Your task to perform on an android device: Go to settings Image 0: 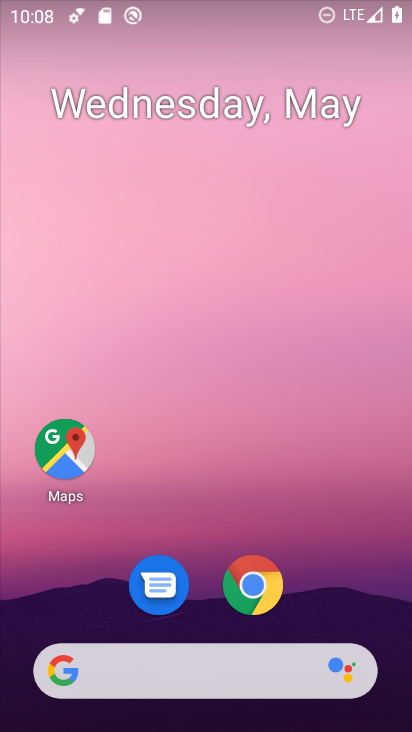
Step 0: drag from (270, 449) to (289, 66)
Your task to perform on an android device: Go to settings Image 1: 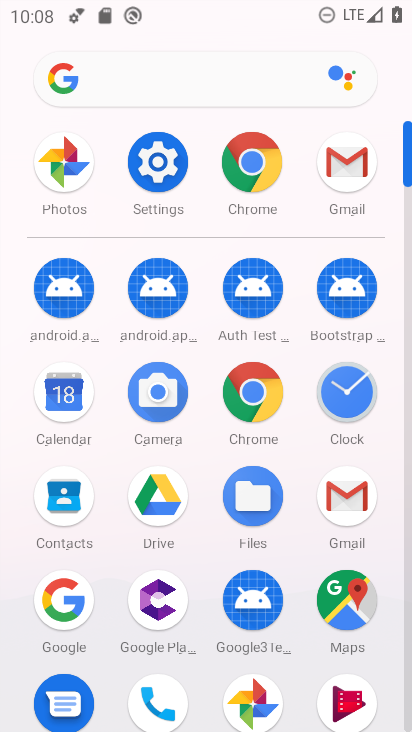
Step 1: click (160, 162)
Your task to perform on an android device: Go to settings Image 2: 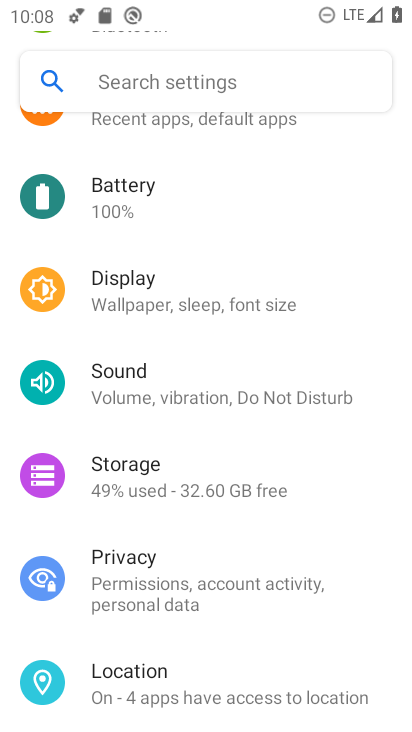
Step 2: task complete